Your task to perform on an android device: Open privacy settings Image 0: 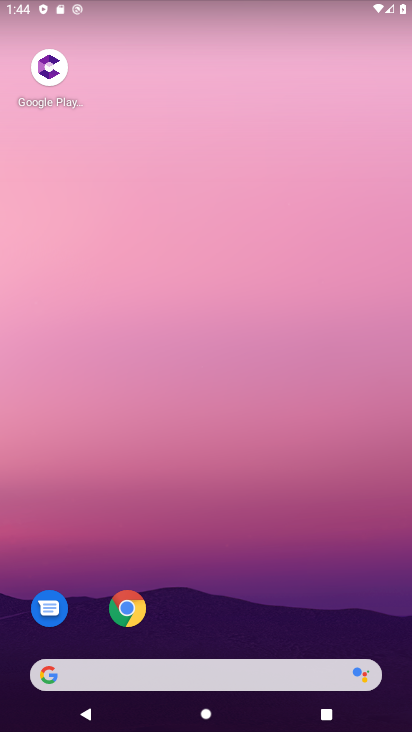
Step 0: drag from (244, 598) to (209, 136)
Your task to perform on an android device: Open privacy settings Image 1: 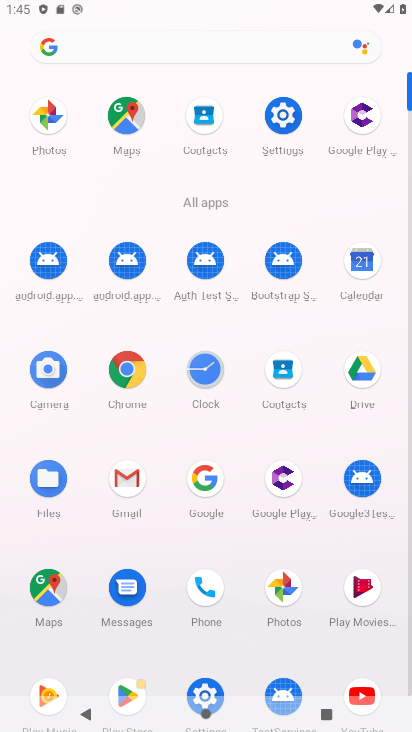
Step 1: click (282, 113)
Your task to perform on an android device: Open privacy settings Image 2: 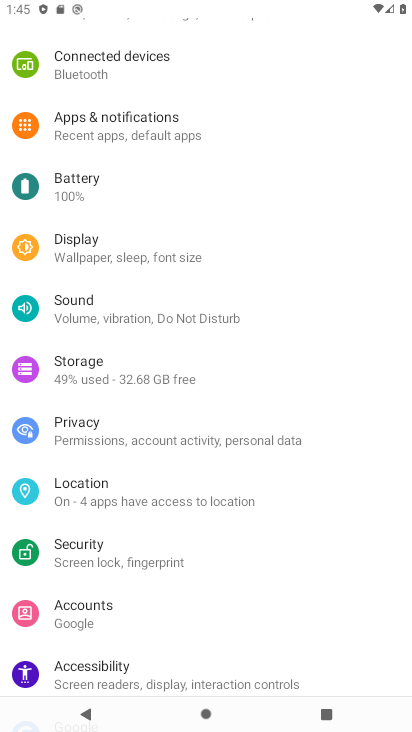
Step 2: click (86, 419)
Your task to perform on an android device: Open privacy settings Image 3: 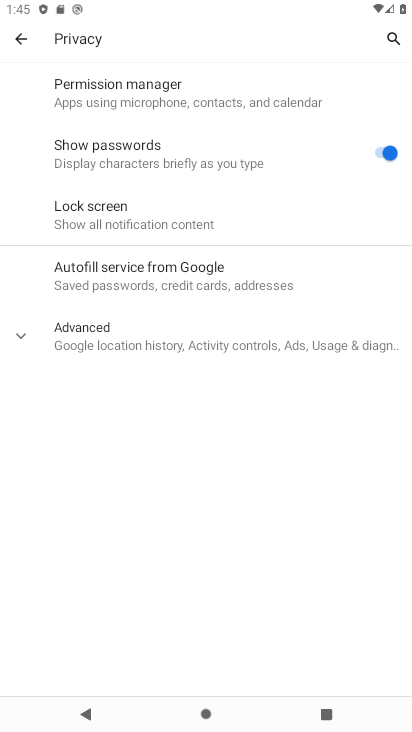
Step 3: task complete